Your task to perform on an android device: delete browsing data in the chrome app Image 0: 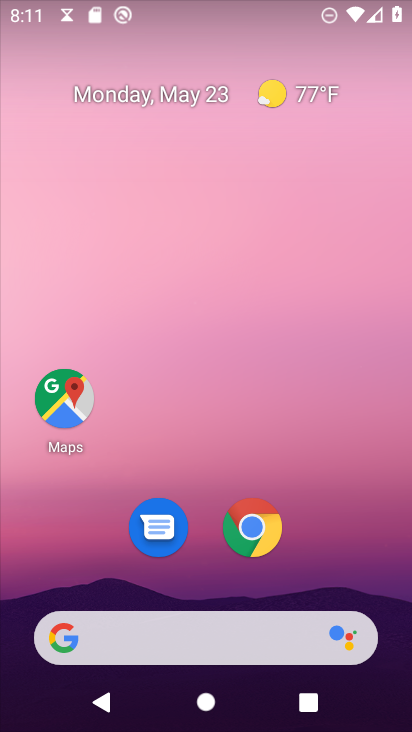
Step 0: press home button
Your task to perform on an android device: delete browsing data in the chrome app Image 1: 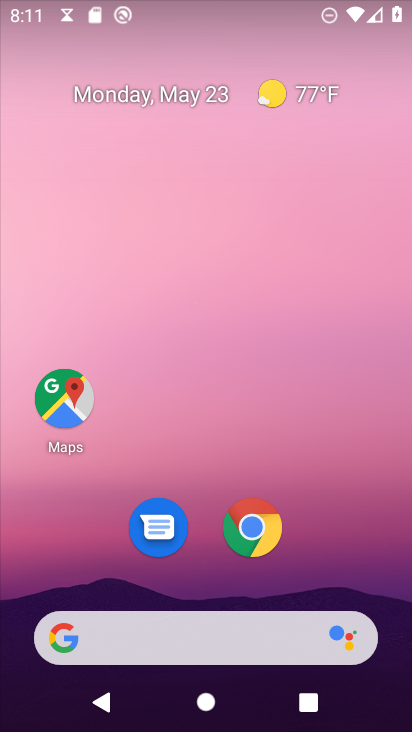
Step 1: drag from (289, 659) to (222, 211)
Your task to perform on an android device: delete browsing data in the chrome app Image 2: 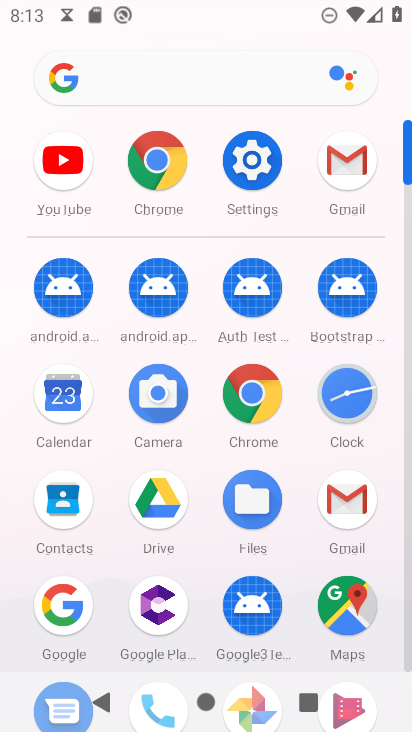
Step 2: click (167, 194)
Your task to perform on an android device: delete browsing data in the chrome app Image 3: 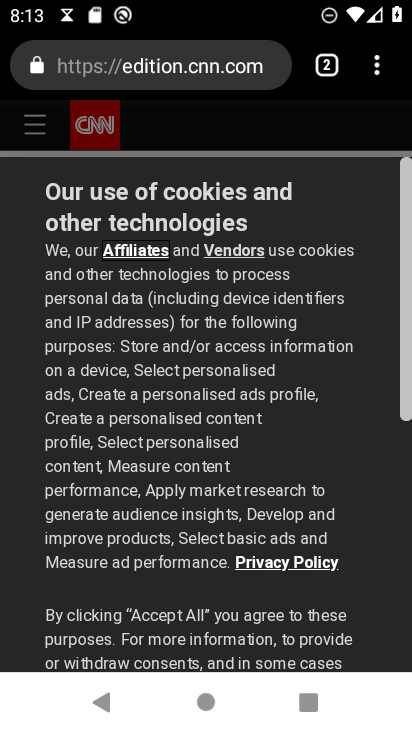
Step 3: click (373, 66)
Your task to perform on an android device: delete browsing data in the chrome app Image 4: 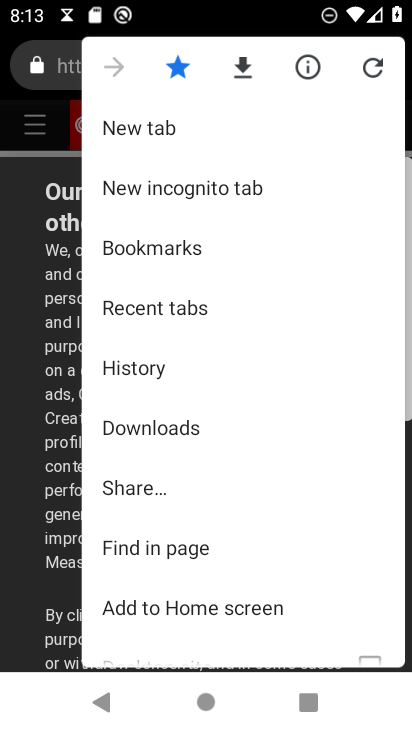
Step 4: drag from (197, 523) to (254, 239)
Your task to perform on an android device: delete browsing data in the chrome app Image 5: 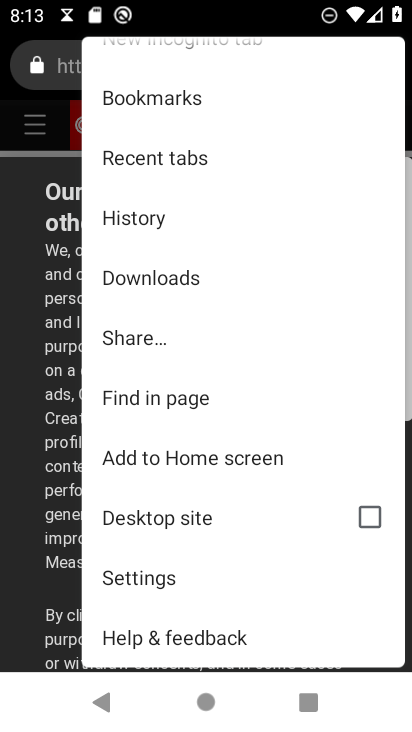
Step 5: click (169, 213)
Your task to perform on an android device: delete browsing data in the chrome app Image 6: 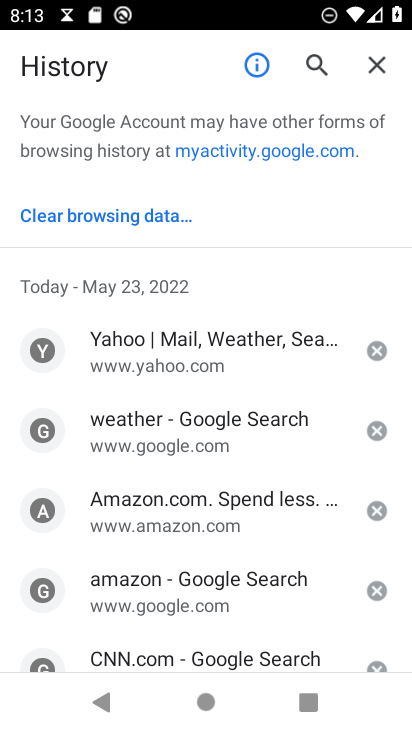
Step 6: click (110, 219)
Your task to perform on an android device: delete browsing data in the chrome app Image 7: 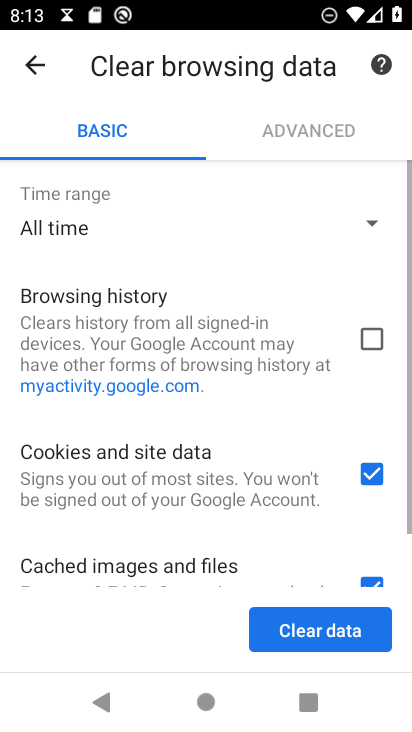
Step 7: click (370, 574)
Your task to perform on an android device: delete browsing data in the chrome app Image 8: 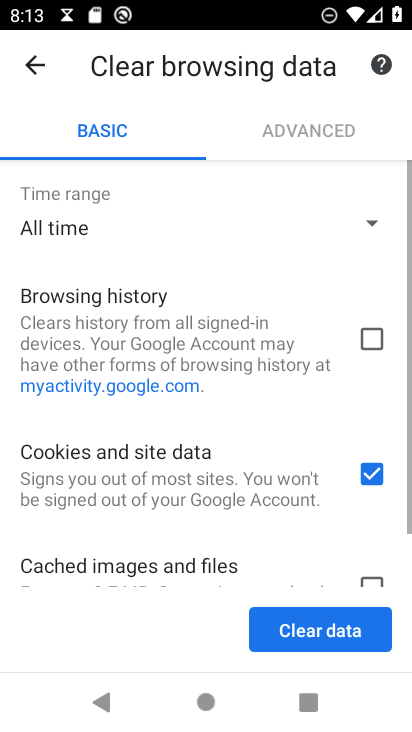
Step 8: click (369, 336)
Your task to perform on an android device: delete browsing data in the chrome app Image 9: 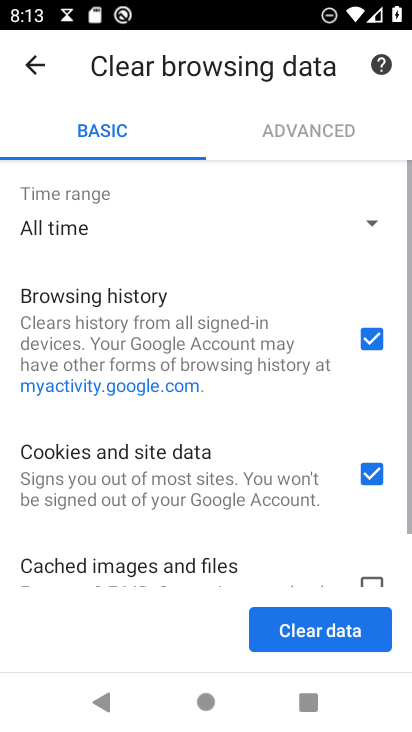
Step 9: click (381, 480)
Your task to perform on an android device: delete browsing data in the chrome app Image 10: 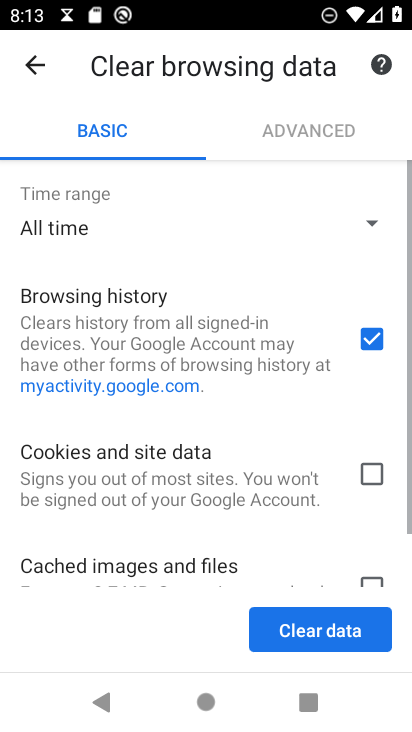
Step 10: click (346, 634)
Your task to perform on an android device: delete browsing data in the chrome app Image 11: 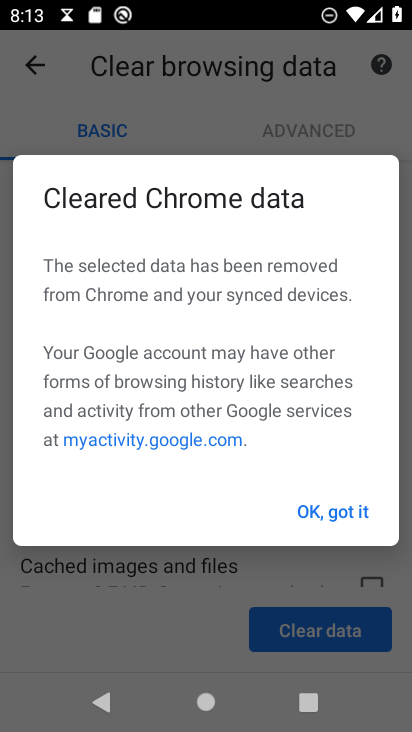
Step 11: task complete